Your task to perform on an android device: choose inbox layout in the gmail app Image 0: 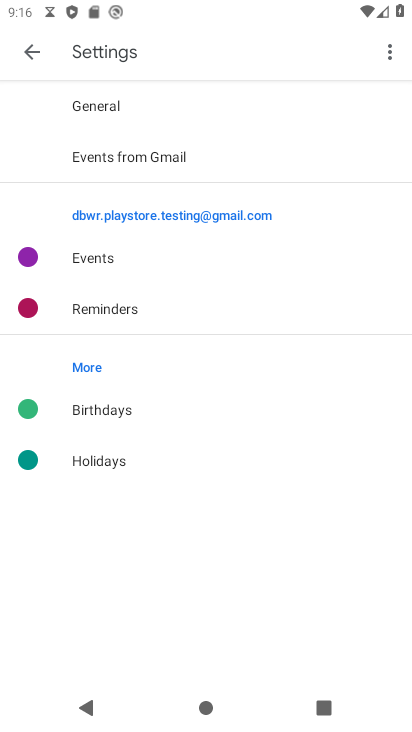
Step 0: press back button
Your task to perform on an android device: choose inbox layout in the gmail app Image 1: 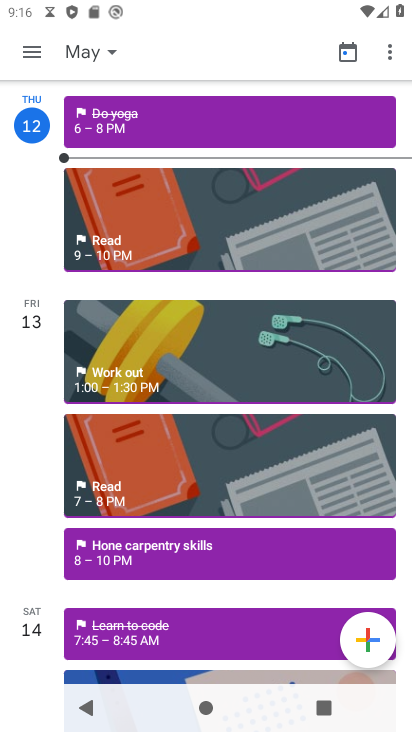
Step 1: press back button
Your task to perform on an android device: choose inbox layout in the gmail app Image 2: 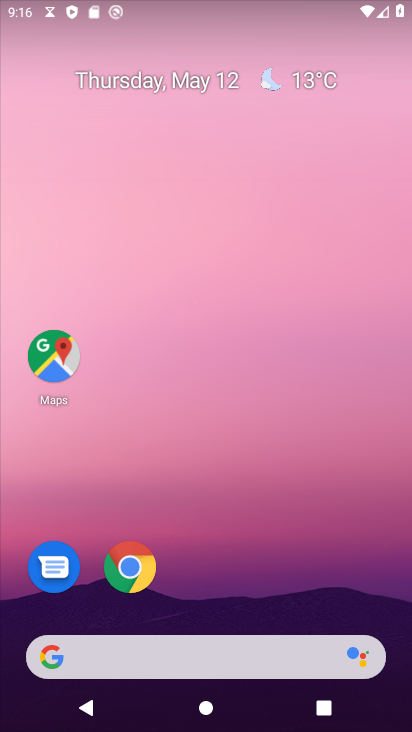
Step 2: drag from (176, 606) to (180, 343)
Your task to perform on an android device: choose inbox layout in the gmail app Image 3: 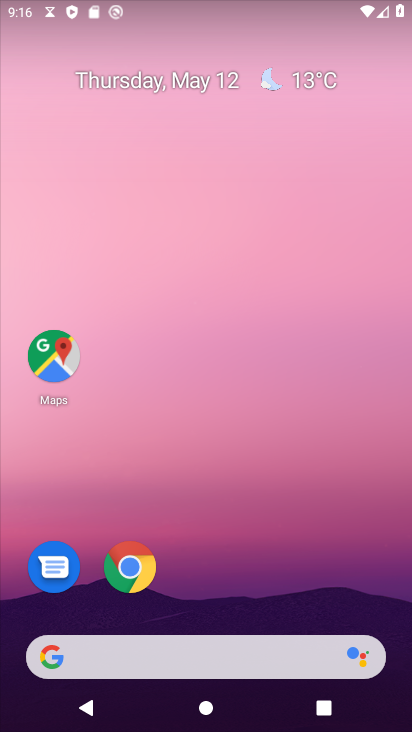
Step 3: drag from (238, 540) to (223, 86)
Your task to perform on an android device: choose inbox layout in the gmail app Image 4: 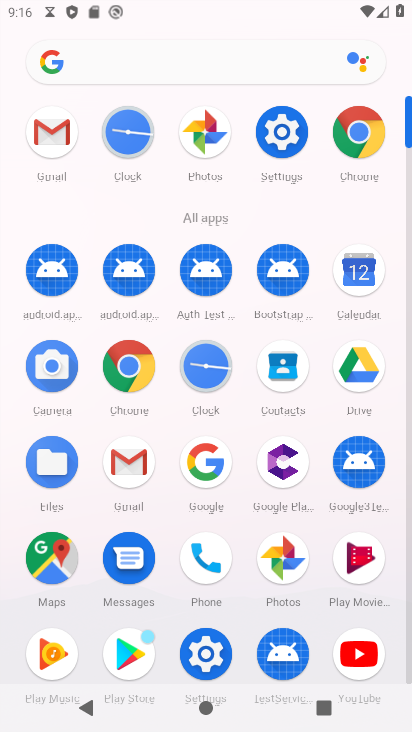
Step 4: click (56, 156)
Your task to perform on an android device: choose inbox layout in the gmail app Image 5: 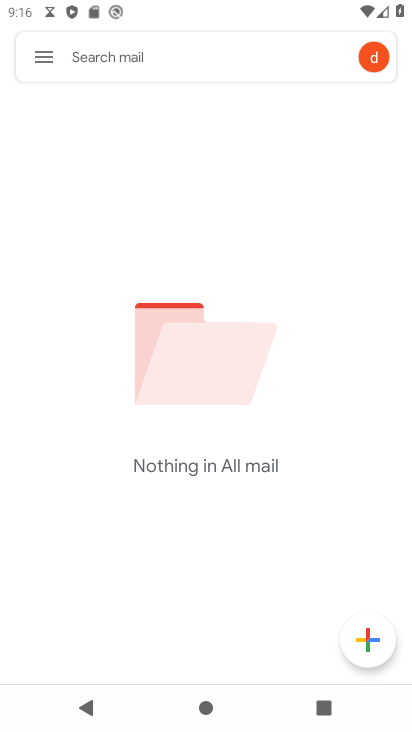
Step 5: click (45, 61)
Your task to perform on an android device: choose inbox layout in the gmail app Image 6: 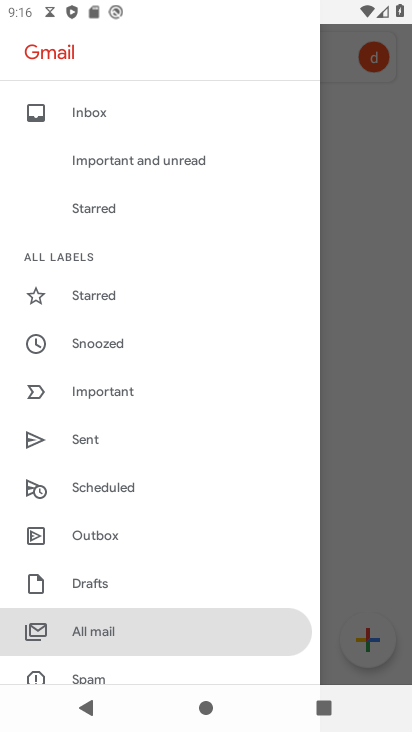
Step 6: drag from (121, 618) to (112, 241)
Your task to perform on an android device: choose inbox layout in the gmail app Image 7: 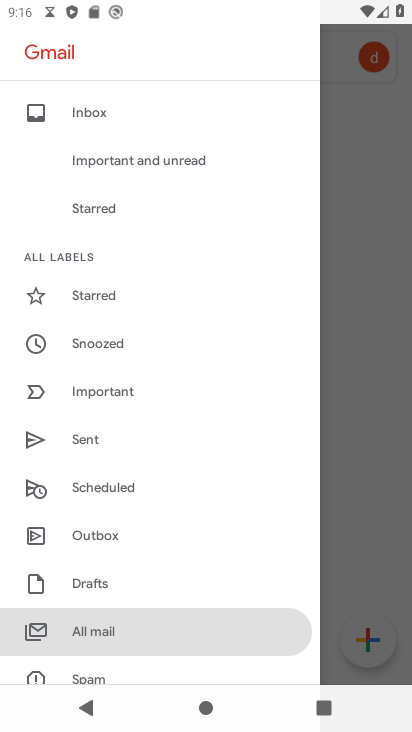
Step 7: drag from (118, 543) to (129, 323)
Your task to perform on an android device: choose inbox layout in the gmail app Image 8: 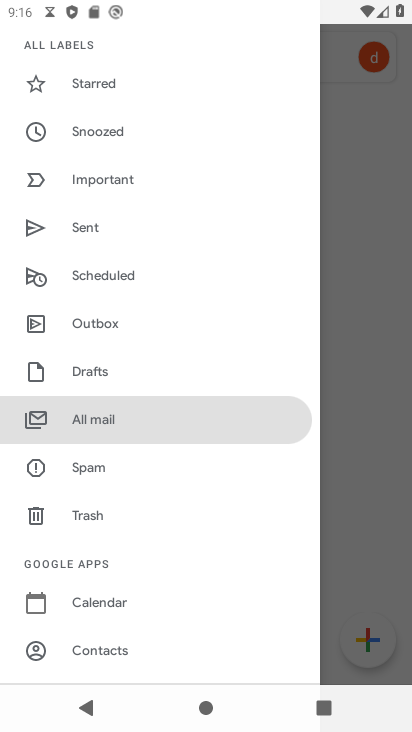
Step 8: drag from (149, 648) to (187, 372)
Your task to perform on an android device: choose inbox layout in the gmail app Image 9: 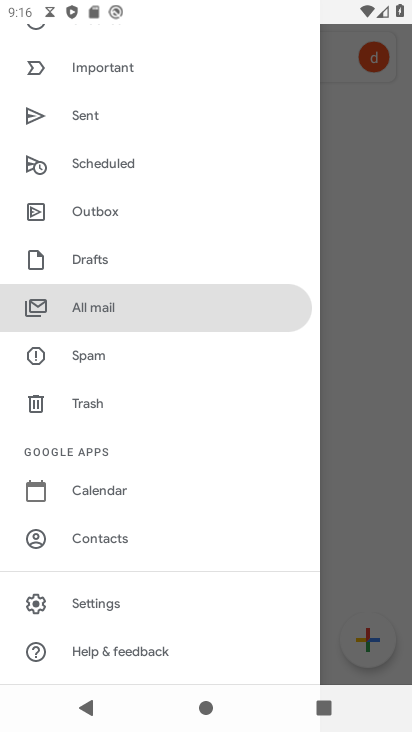
Step 9: click (91, 607)
Your task to perform on an android device: choose inbox layout in the gmail app Image 10: 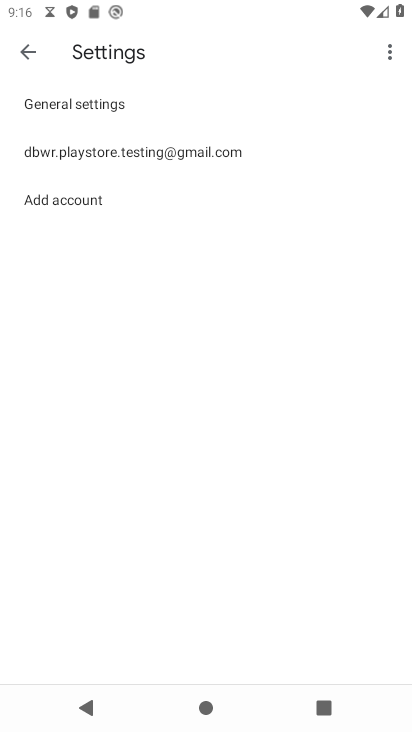
Step 10: click (213, 161)
Your task to perform on an android device: choose inbox layout in the gmail app Image 11: 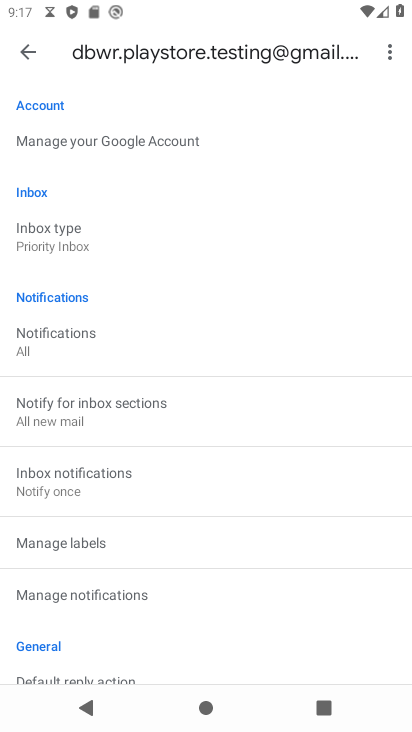
Step 11: click (74, 248)
Your task to perform on an android device: choose inbox layout in the gmail app Image 12: 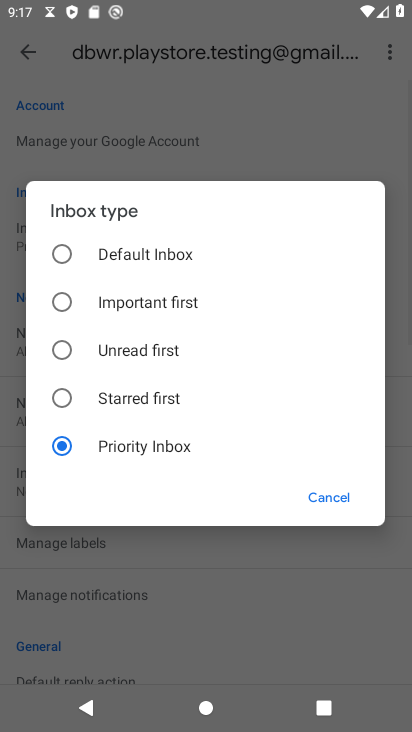
Step 12: click (92, 265)
Your task to perform on an android device: choose inbox layout in the gmail app Image 13: 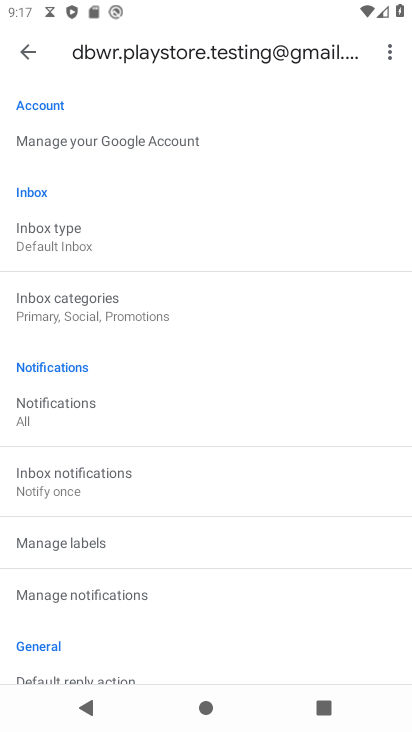
Step 13: task complete